Your task to perform on an android device: Open Amazon Image 0: 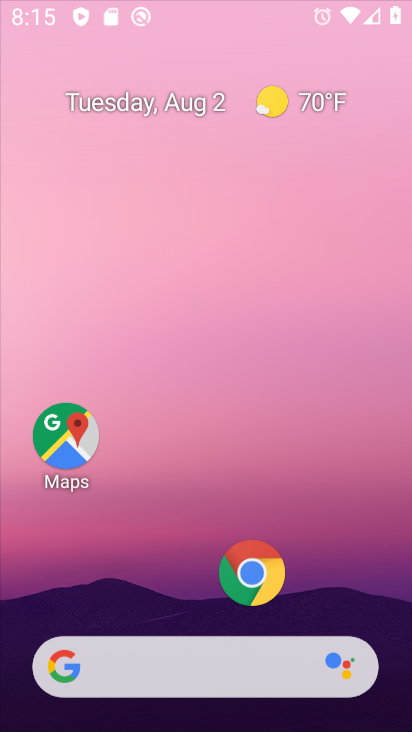
Step 0: press home button
Your task to perform on an android device: Open Amazon Image 1: 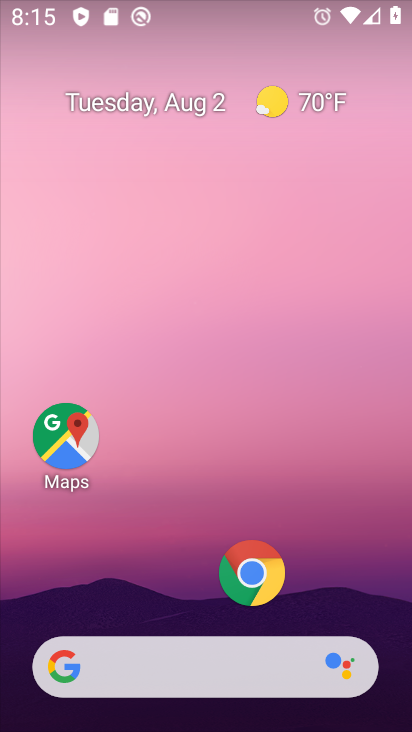
Step 1: click (247, 569)
Your task to perform on an android device: Open Amazon Image 2: 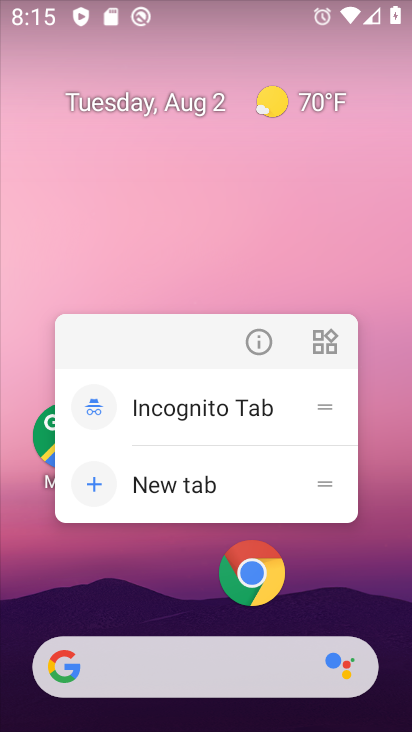
Step 2: click (253, 565)
Your task to perform on an android device: Open Amazon Image 3: 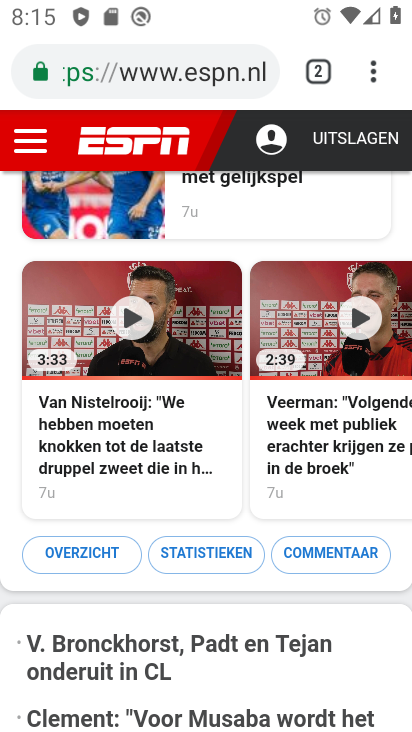
Step 3: click (321, 73)
Your task to perform on an android device: Open Amazon Image 4: 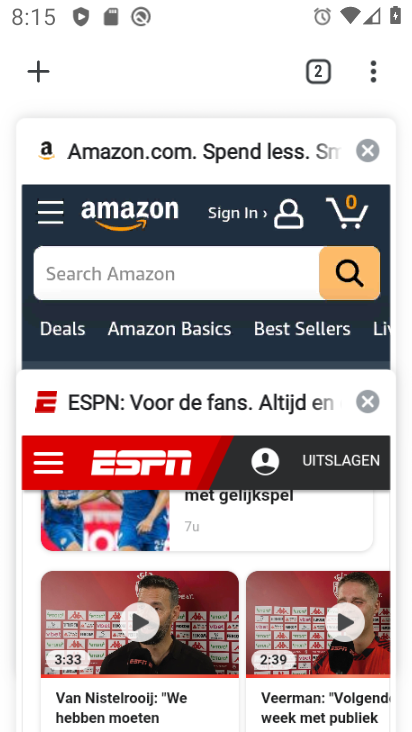
Step 4: click (226, 239)
Your task to perform on an android device: Open Amazon Image 5: 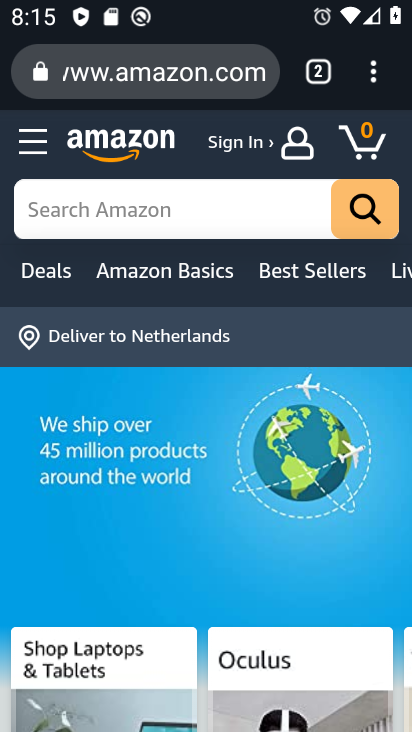
Step 5: task complete